Your task to perform on an android device: delete location history Image 0: 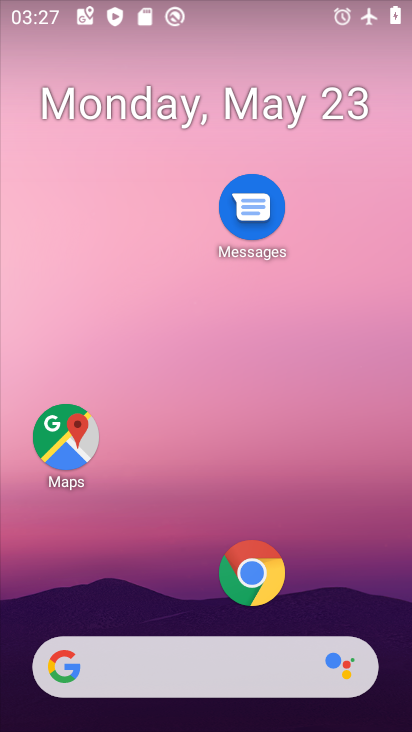
Step 0: drag from (338, 656) to (351, 23)
Your task to perform on an android device: delete location history Image 1: 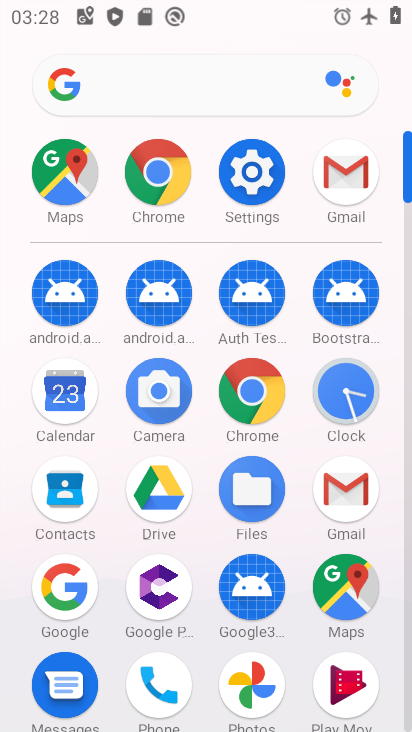
Step 1: click (329, 575)
Your task to perform on an android device: delete location history Image 2: 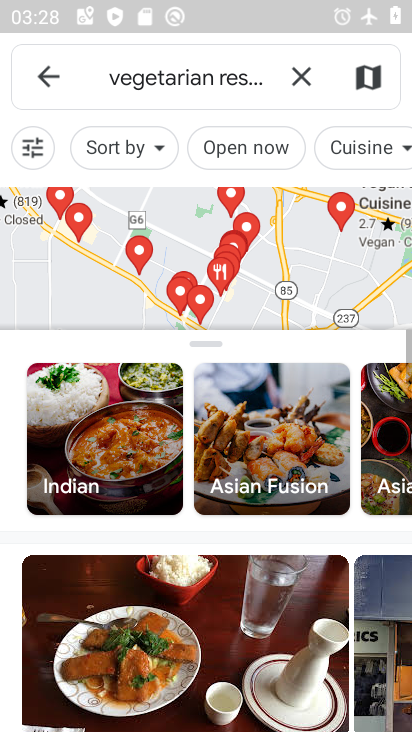
Step 2: press back button
Your task to perform on an android device: delete location history Image 3: 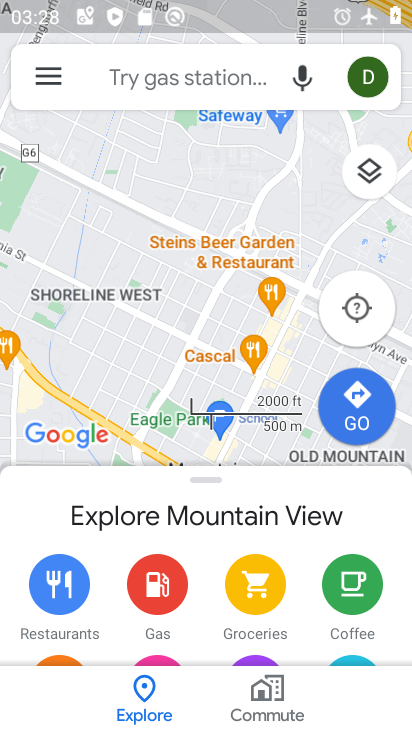
Step 3: click (35, 68)
Your task to perform on an android device: delete location history Image 4: 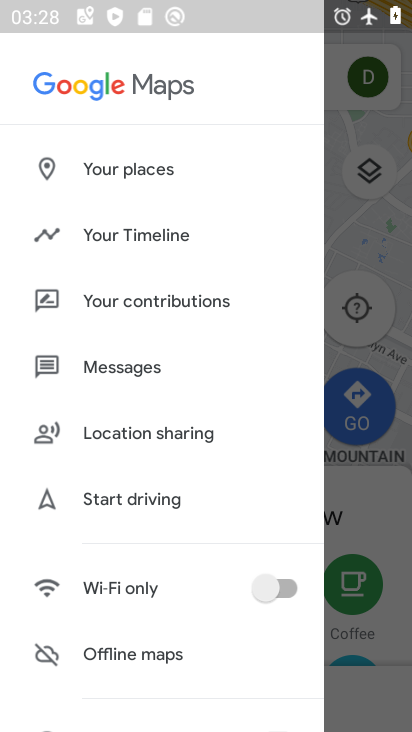
Step 4: drag from (133, 586) to (144, 63)
Your task to perform on an android device: delete location history Image 5: 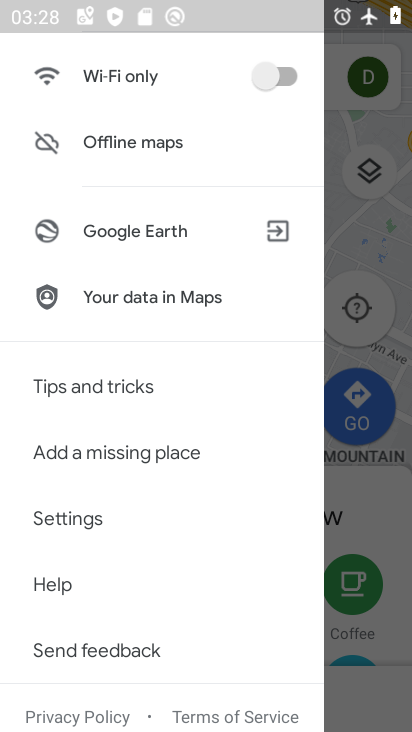
Step 5: drag from (103, 137) to (110, 694)
Your task to perform on an android device: delete location history Image 6: 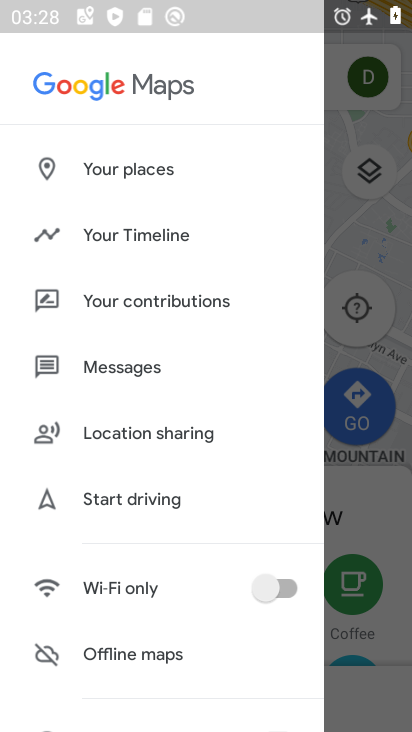
Step 6: click (122, 232)
Your task to perform on an android device: delete location history Image 7: 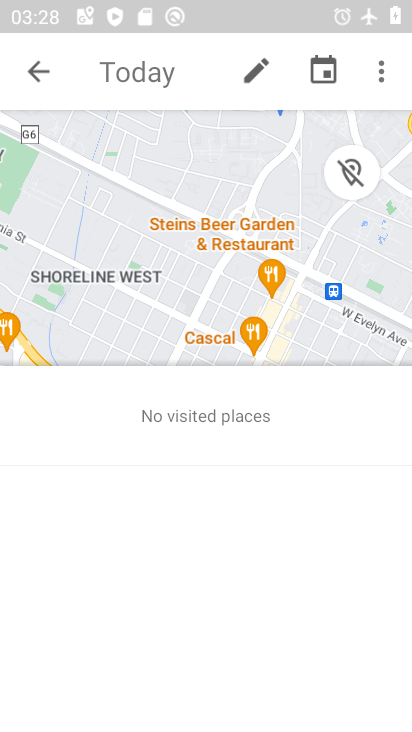
Step 7: click (384, 72)
Your task to perform on an android device: delete location history Image 8: 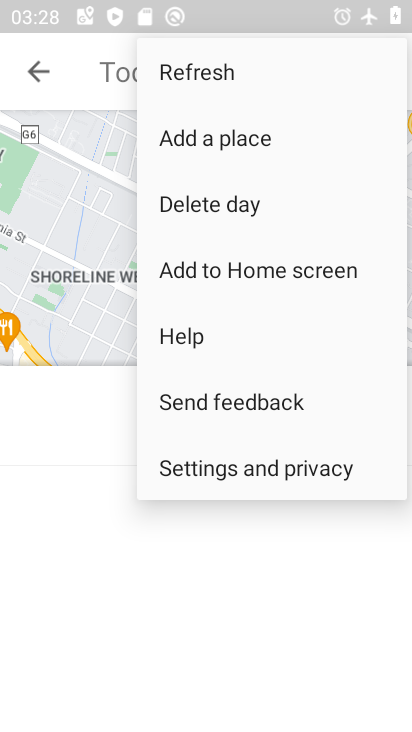
Step 8: click (254, 461)
Your task to perform on an android device: delete location history Image 9: 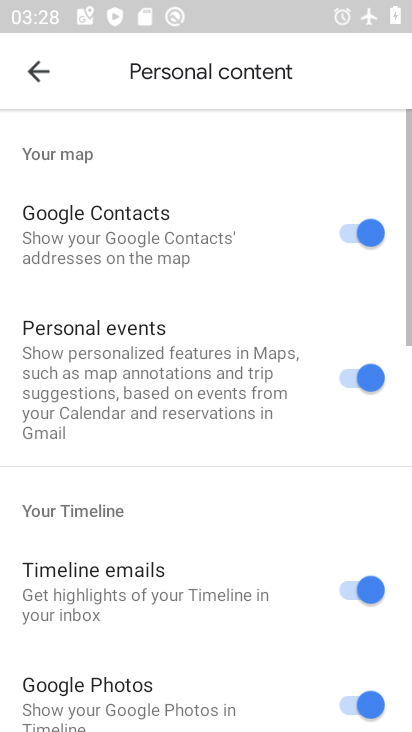
Step 9: drag from (280, 533) to (154, 49)
Your task to perform on an android device: delete location history Image 10: 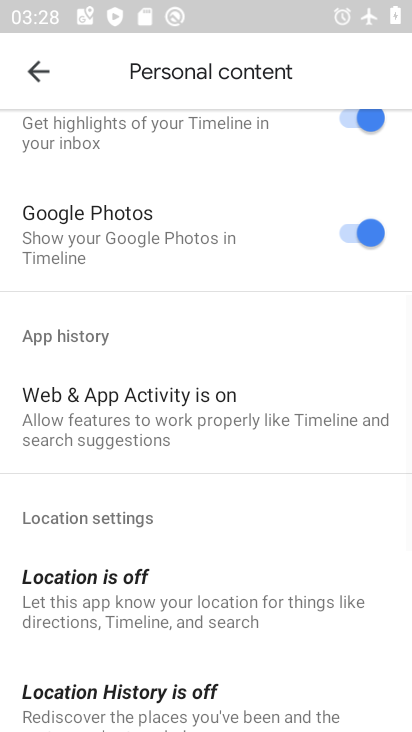
Step 10: drag from (264, 626) to (220, 94)
Your task to perform on an android device: delete location history Image 11: 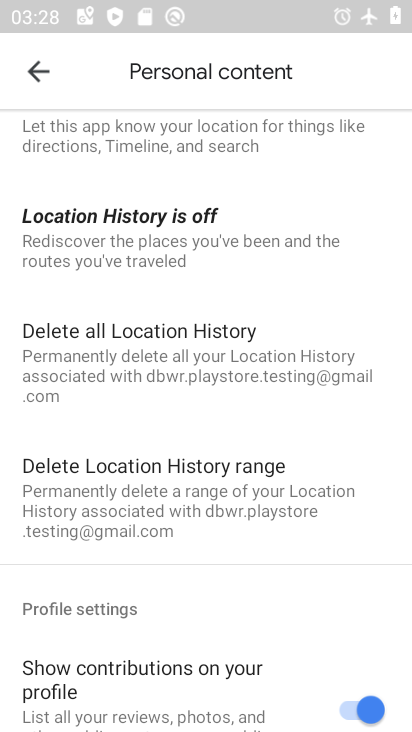
Step 11: click (233, 360)
Your task to perform on an android device: delete location history Image 12: 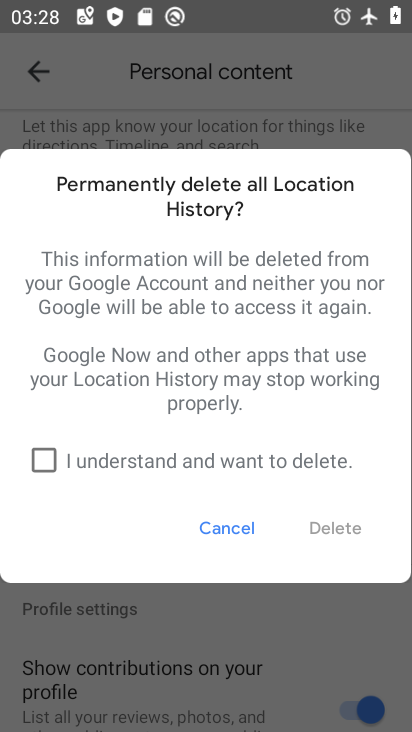
Step 12: click (31, 464)
Your task to perform on an android device: delete location history Image 13: 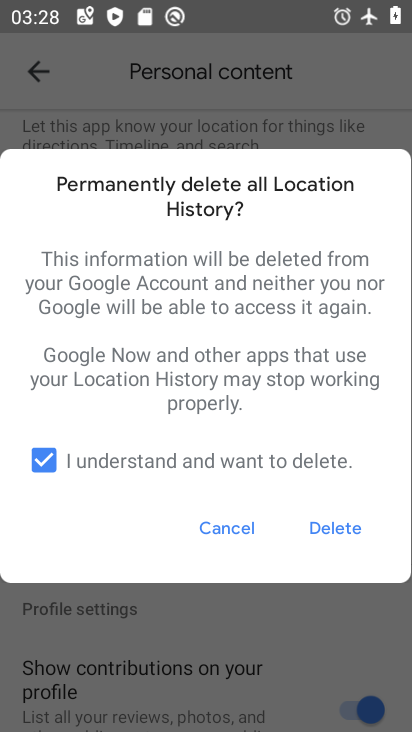
Step 13: click (346, 531)
Your task to perform on an android device: delete location history Image 14: 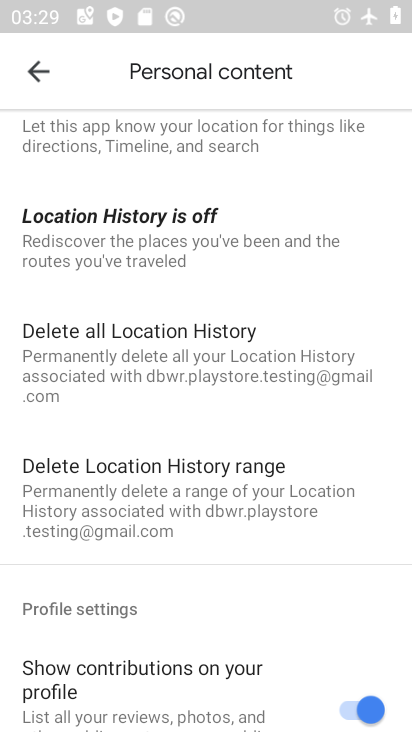
Step 14: task complete